Your task to perform on an android device: star an email in the gmail app Image 0: 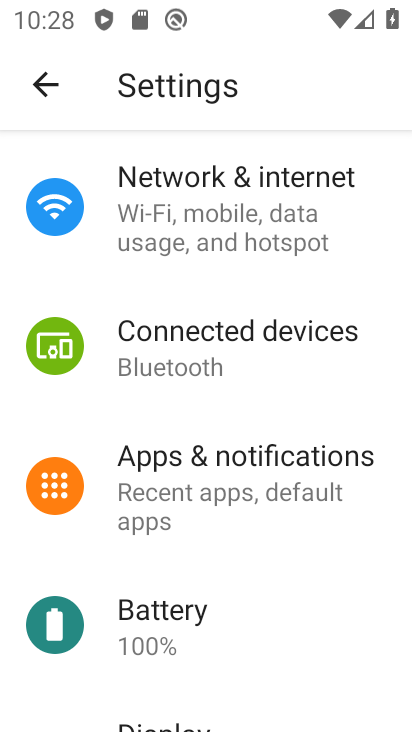
Step 0: press home button
Your task to perform on an android device: star an email in the gmail app Image 1: 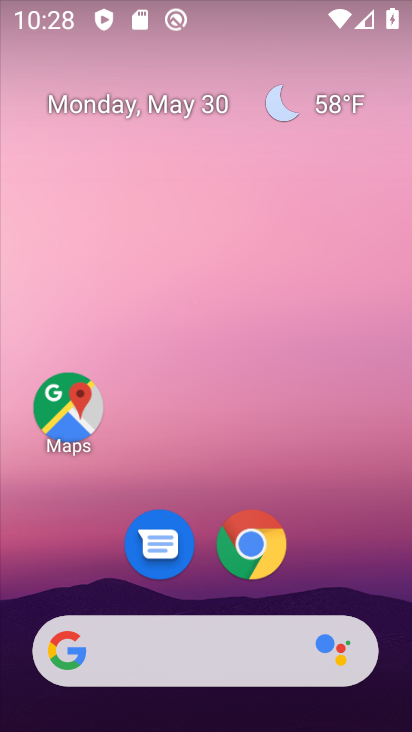
Step 1: drag from (368, 556) to (258, 41)
Your task to perform on an android device: star an email in the gmail app Image 2: 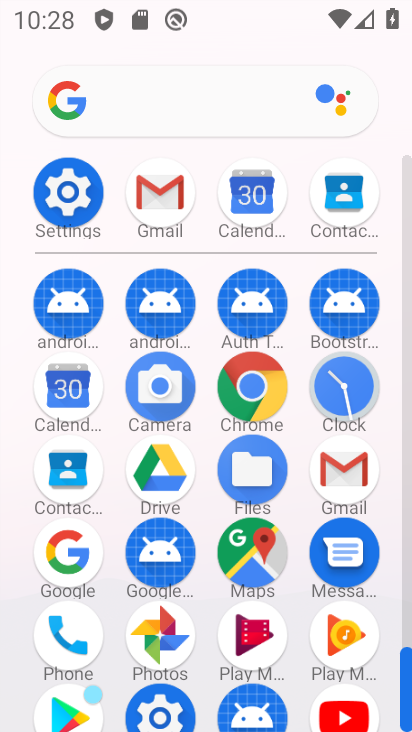
Step 2: click (353, 490)
Your task to perform on an android device: star an email in the gmail app Image 3: 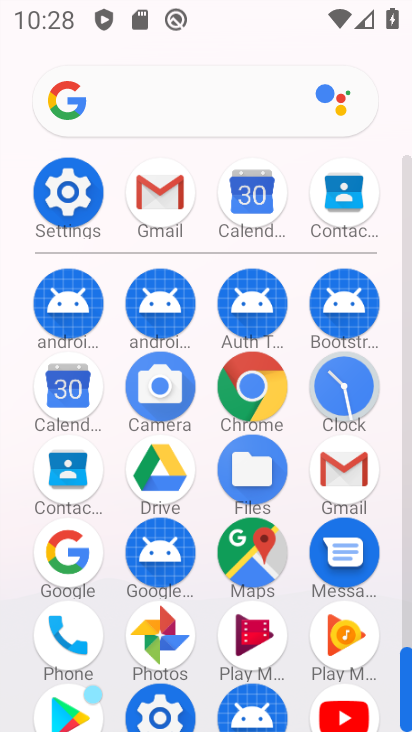
Step 3: click (353, 490)
Your task to perform on an android device: star an email in the gmail app Image 4: 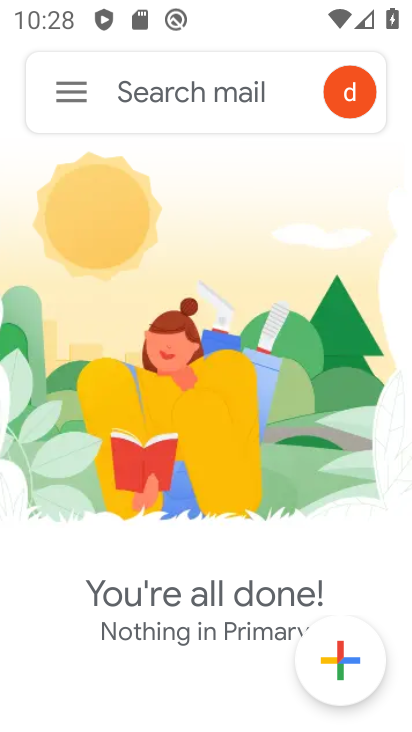
Step 4: task complete